Your task to perform on an android device: Open the map Image 0: 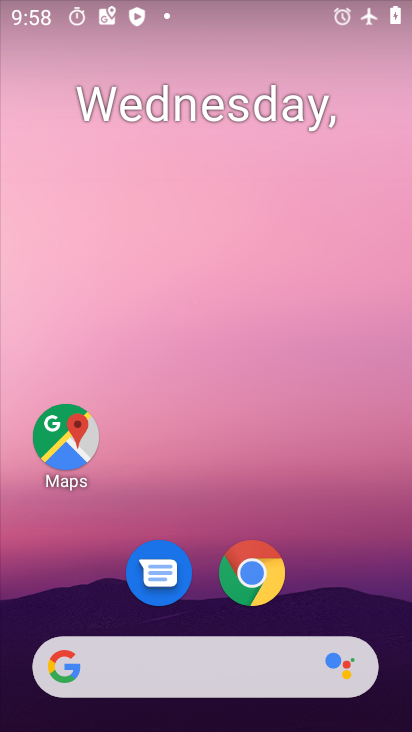
Step 0: drag from (289, 613) to (258, 297)
Your task to perform on an android device: Open the map Image 1: 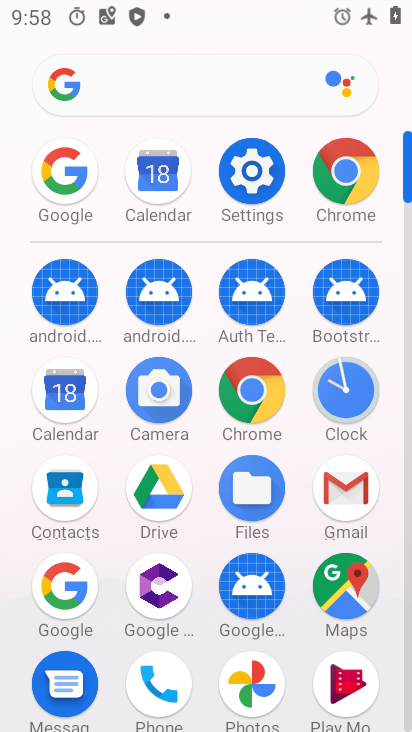
Step 1: click (354, 597)
Your task to perform on an android device: Open the map Image 2: 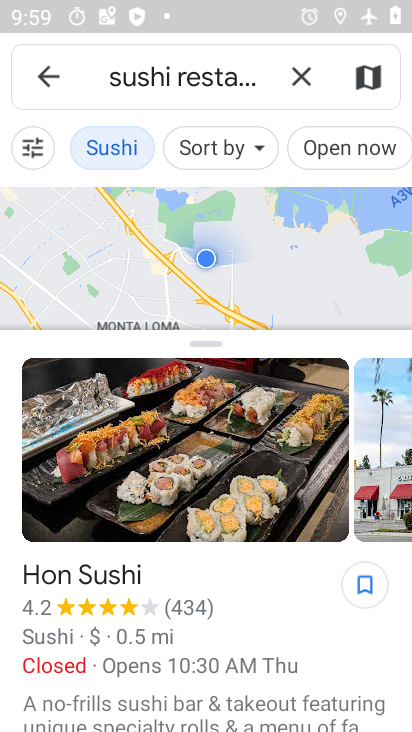
Step 2: task complete